Your task to perform on an android device: turn off translation in the chrome app Image 0: 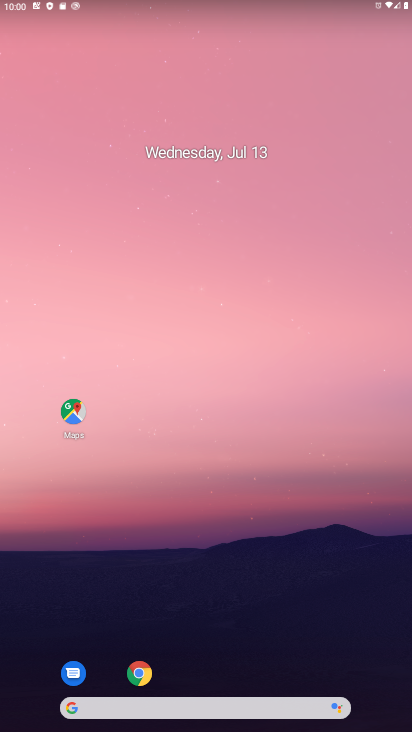
Step 0: click (137, 672)
Your task to perform on an android device: turn off translation in the chrome app Image 1: 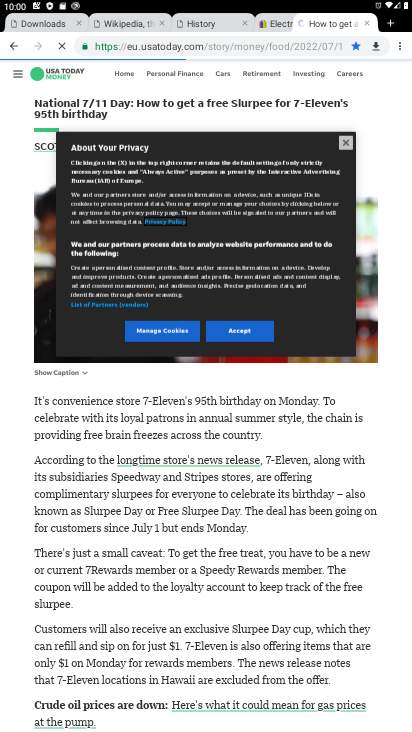
Step 1: click (404, 50)
Your task to perform on an android device: turn off translation in the chrome app Image 2: 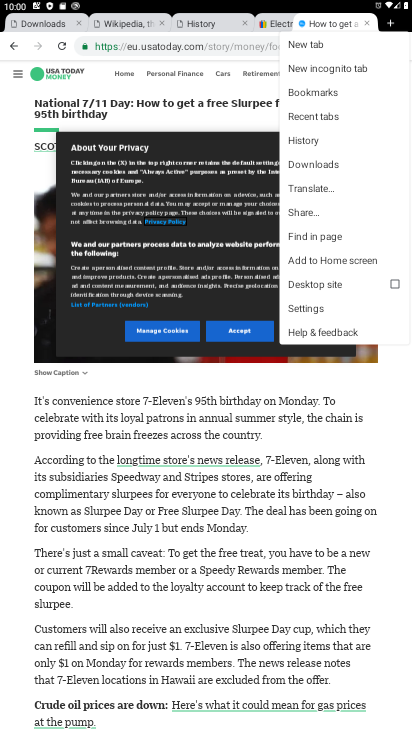
Step 2: click (311, 311)
Your task to perform on an android device: turn off translation in the chrome app Image 3: 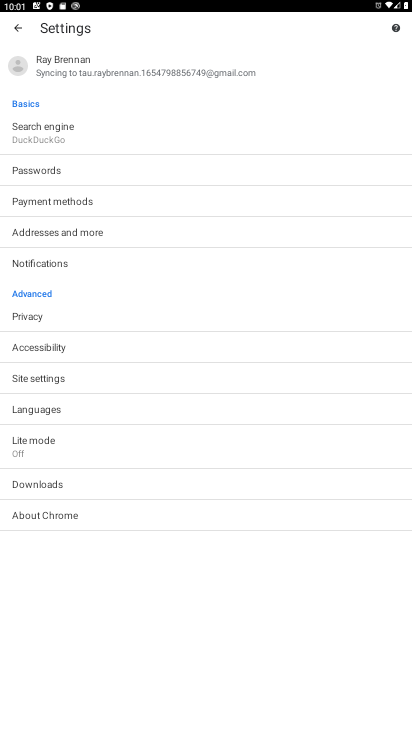
Step 3: click (38, 415)
Your task to perform on an android device: turn off translation in the chrome app Image 4: 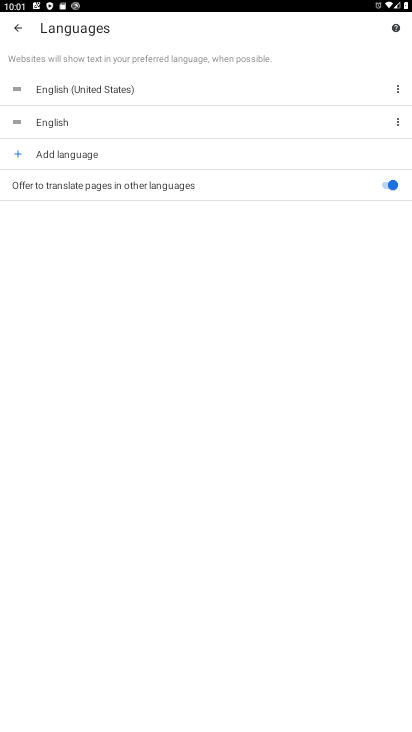
Step 4: click (385, 187)
Your task to perform on an android device: turn off translation in the chrome app Image 5: 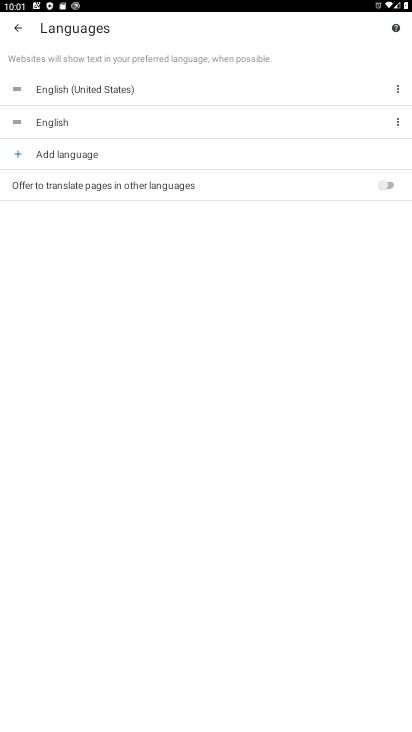
Step 5: task complete